Your task to perform on an android device: open a bookmark in the chrome app Image 0: 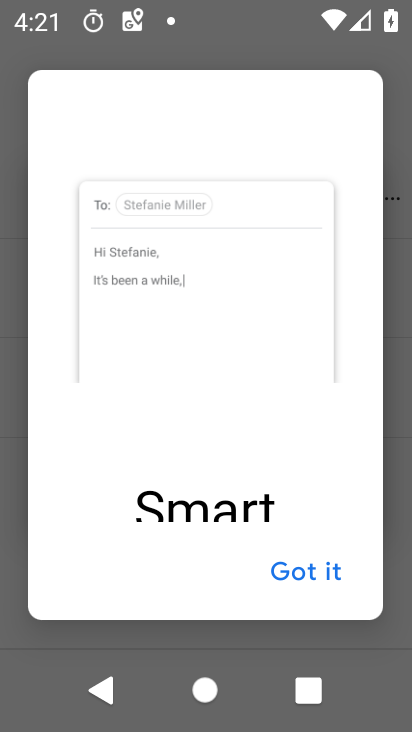
Step 0: press home button
Your task to perform on an android device: open a bookmark in the chrome app Image 1: 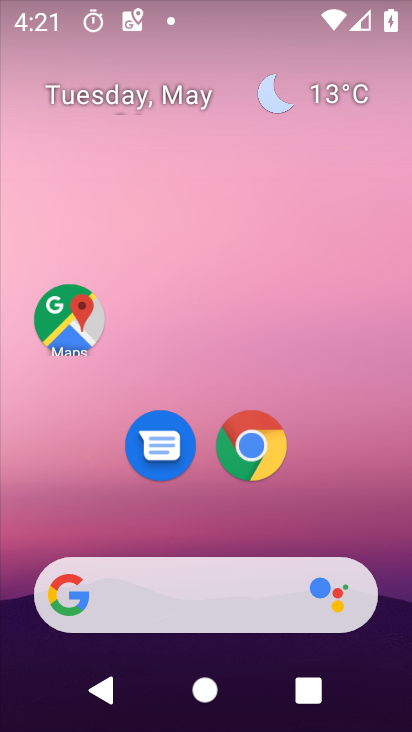
Step 1: click (251, 444)
Your task to perform on an android device: open a bookmark in the chrome app Image 2: 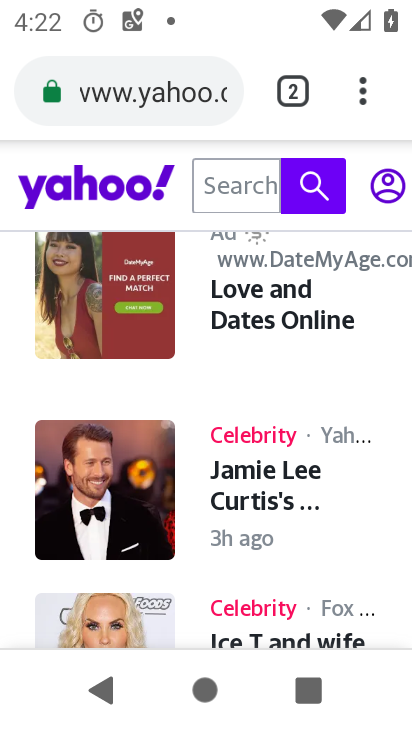
Step 2: click (288, 86)
Your task to perform on an android device: open a bookmark in the chrome app Image 3: 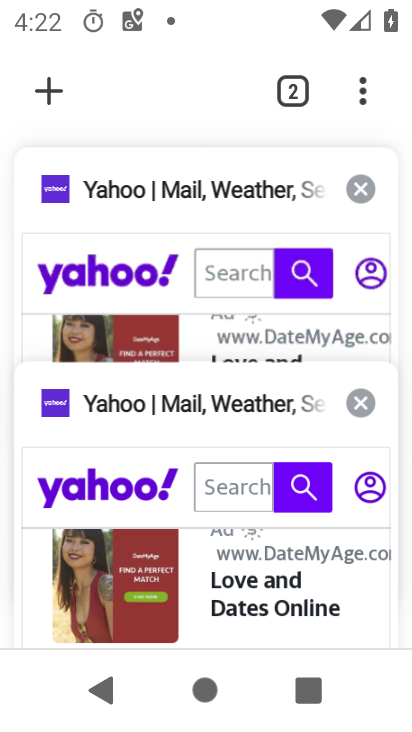
Step 3: click (361, 184)
Your task to perform on an android device: open a bookmark in the chrome app Image 4: 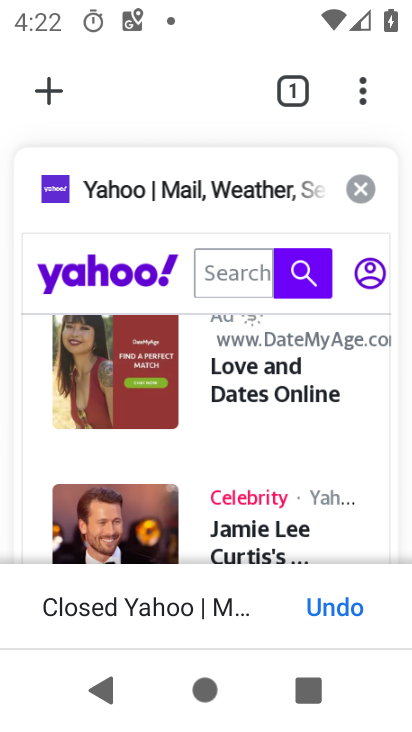
Step 4: click (361, 187)
Your task to perform on an android device: open a bookmark in the chrome app Image 5: 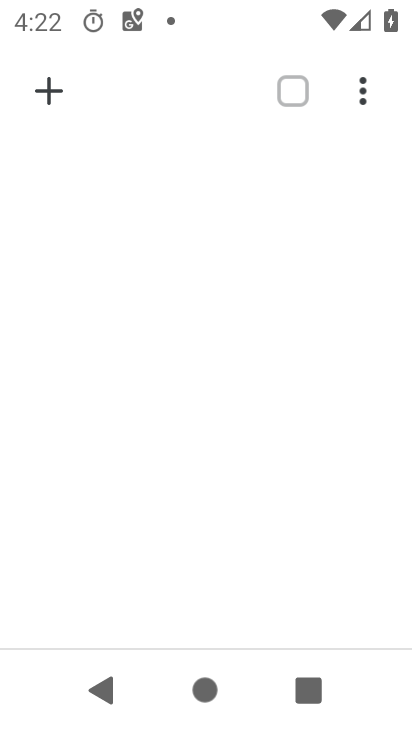
Step 5: click (58, 85)
Your task to perform on an android device: open a bookmark in the chrome app Image 6: 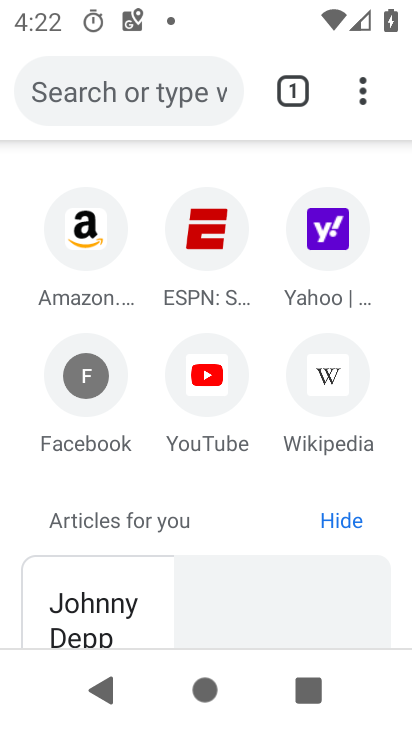
Step 6: click (363, 92)
Your task to perform on an android device: open a bookmark in the chrome app Image 7: 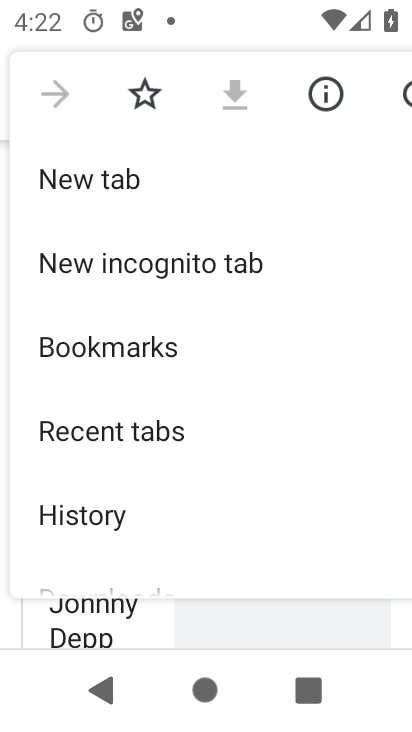
Step 7: click (189, 341)
Your task to perform on an android device: open a bookmark in the chrome app Image 8: 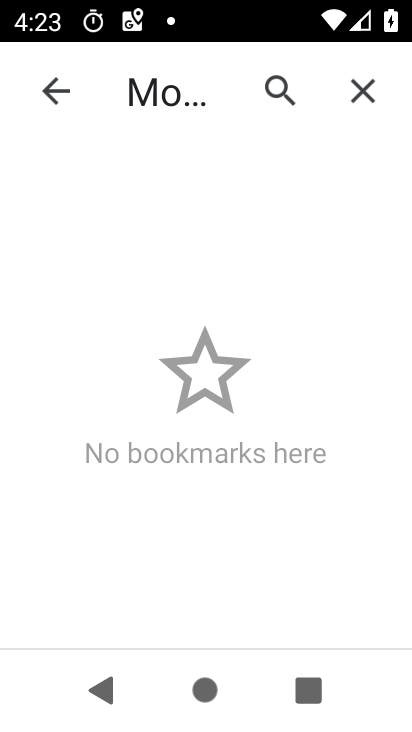
Step 8: task complete